Your task to perform on an android device: Do I have any events this weekend? Image 0: 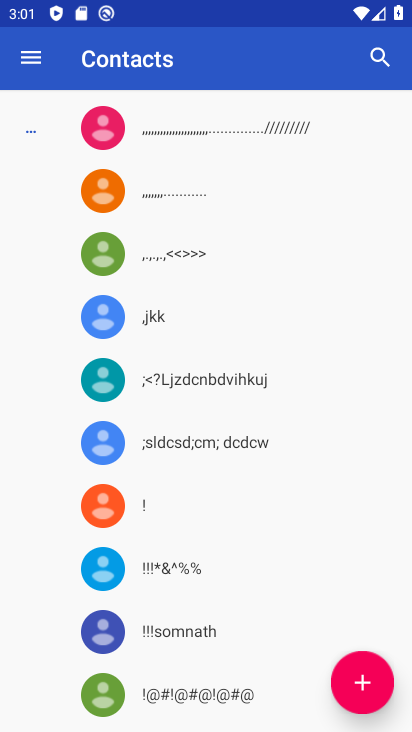
Step 0: press home button
Your task to perform on an android device: Do I have any events this weekend? Image 1: 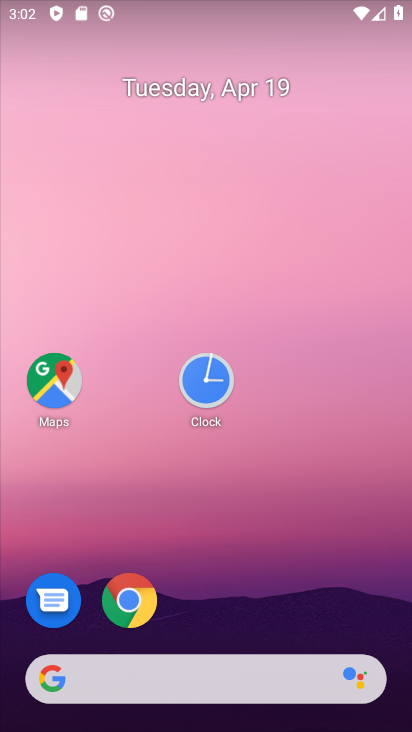
Step 1: drag from (223, 402) to (27, 142)
Your task to perform on an android device: Do I have any events this weekend? Image 2: 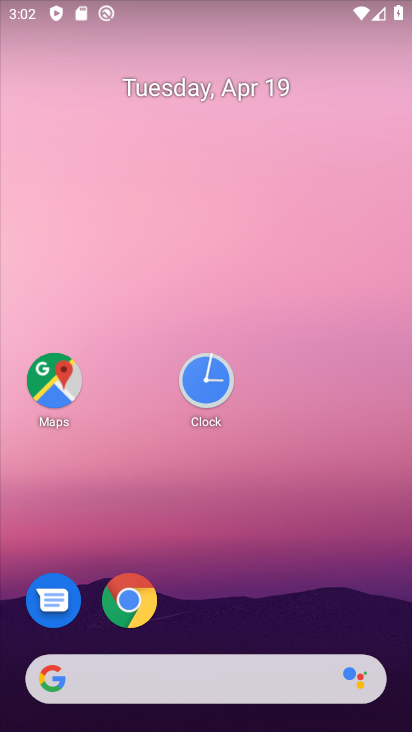
Step 2: drag from (153, 205) to (50, 160)
Your task to perform on an android device: Do I have any events this weekend? Image 3: 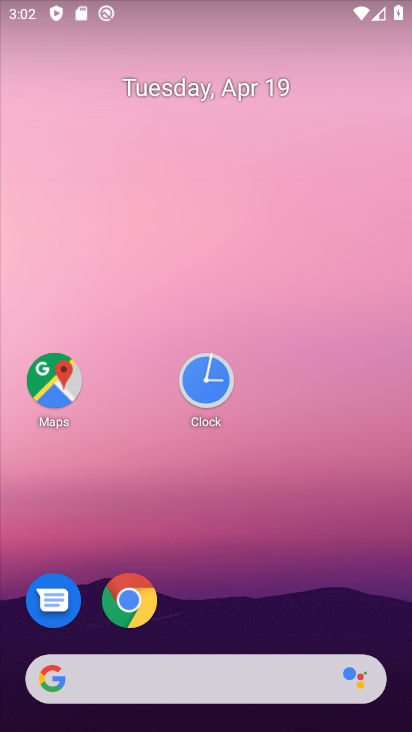
Step 3: click (50, 158)
Your task to perform on an android device: Do I have any events this weekend? Image 4: 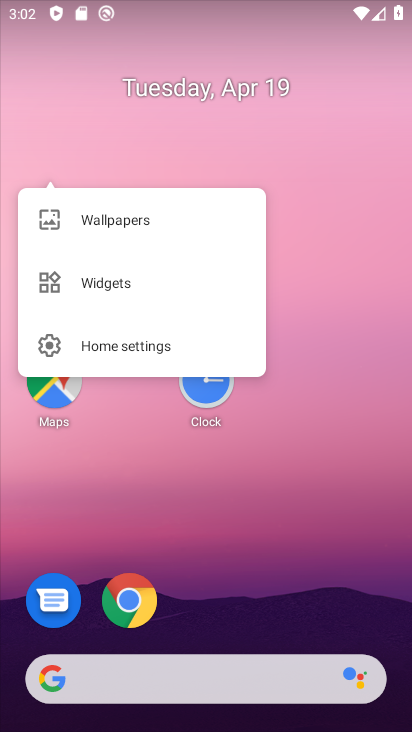
Step 4: click (168, 347)
Your task to perform on an android device: Do I have any events this weekend? Image 5: 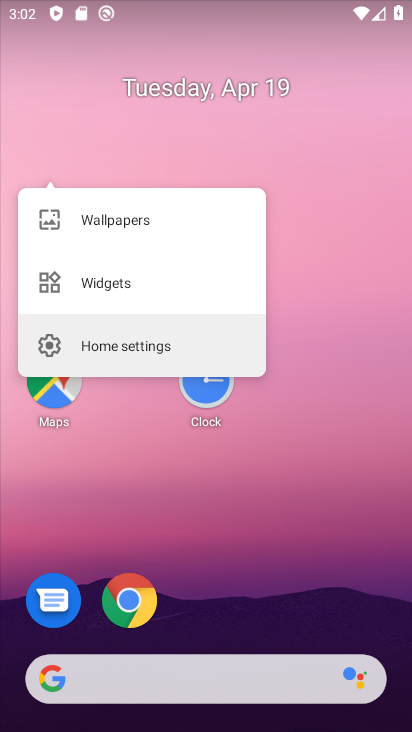
Step 5: click (168, 347)
Your task to perform on an android device: Do I have any events this weekend? Image 6: 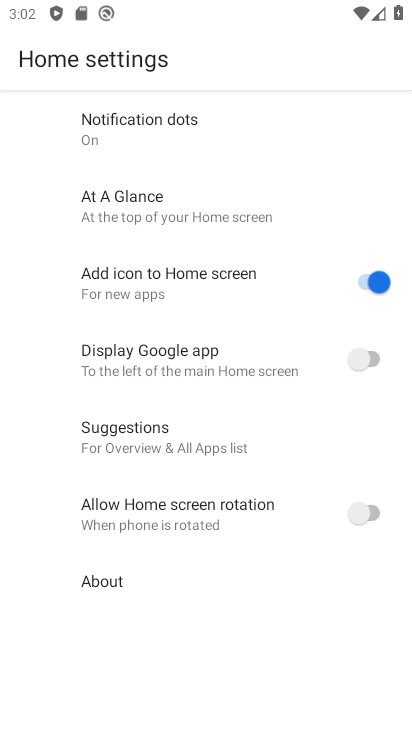
Step 6: press home button
Your task to perform on an android device: Do I have any events this weekend? Image 7: 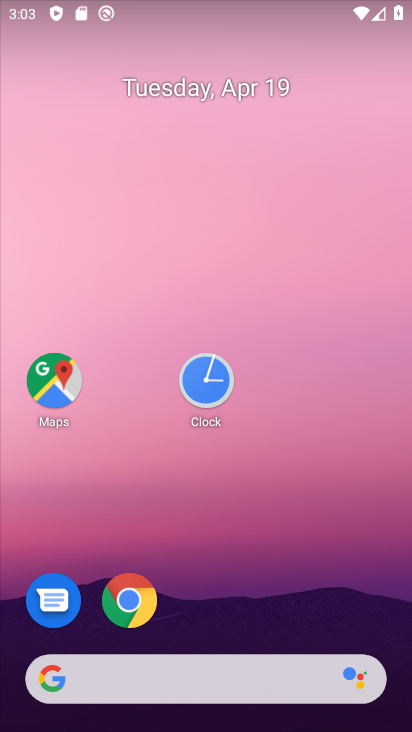
Step 7: drag from (232, 549) to (126, 278)
Your task to perform on an android device: Do I have any events this weekend? Image 8: 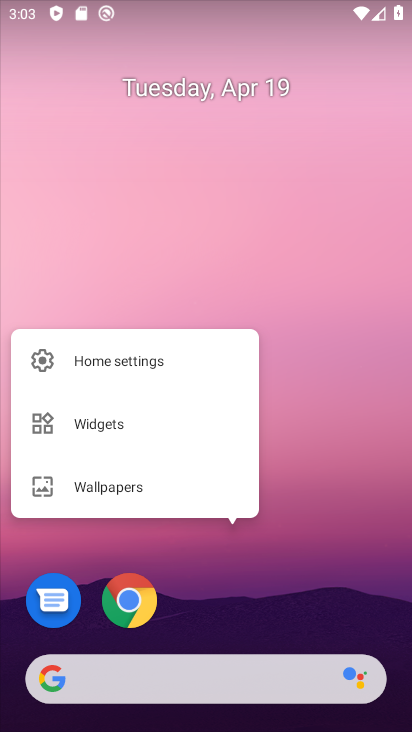
Step 8: drag from (294, 625) to (125, 242)
Your task to perform on an android device: Do I have any events this weekend? Image 9: 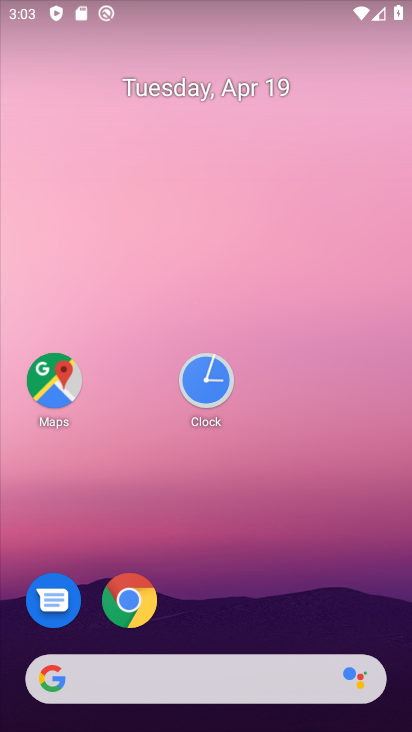
Step 9: drag from (177, 450) to (66, 248)
Your task to perform on an android device: Do I have any events this weekend? Image 10: 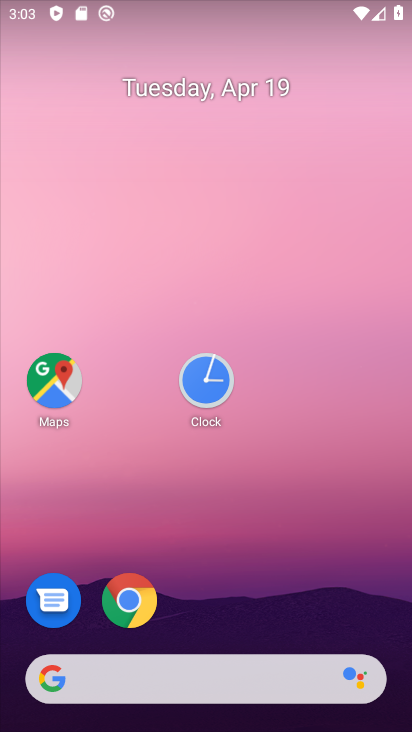
Step 10: drag from (63, 227) to (18, 139)
Your task to perform on an android device: Do I have any events this weekend? Image 11: 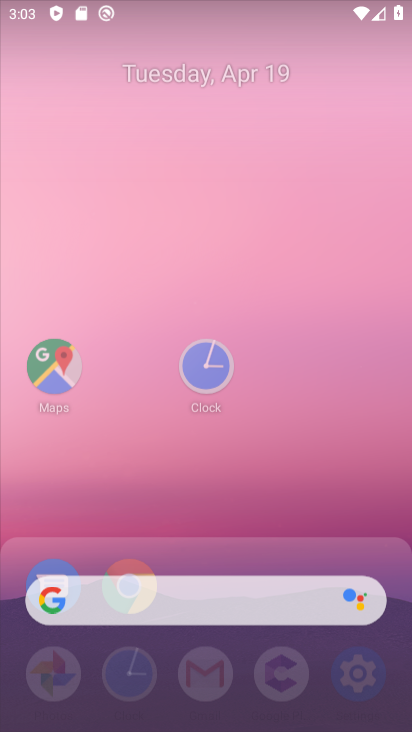
Step 11: drag from (224, 604) to (57, 257)
Your task to perform on an android device: Do I have any events this weekend? Image 12: 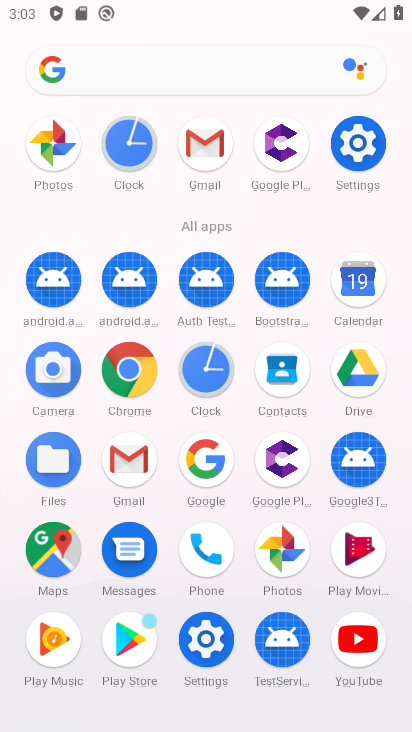
Step 12: drag from (214, 424) to (133, 258)
Your task to perform on an android device: Do I have any events this weekend? Image 13: 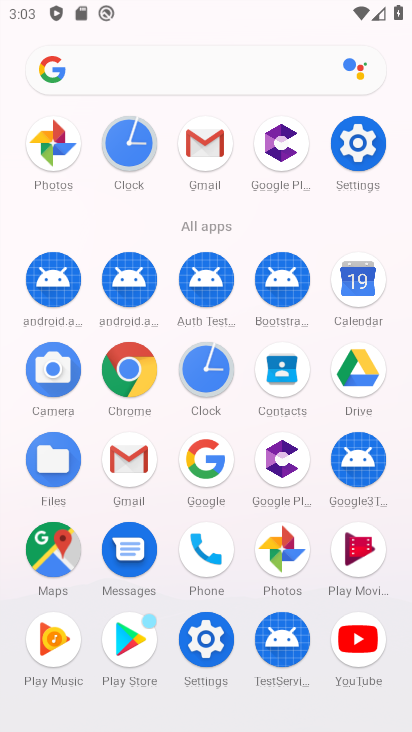
Step 13: click (347, 286)
Your task to perform on an android device: Do I have any events this weekend? Image 14: 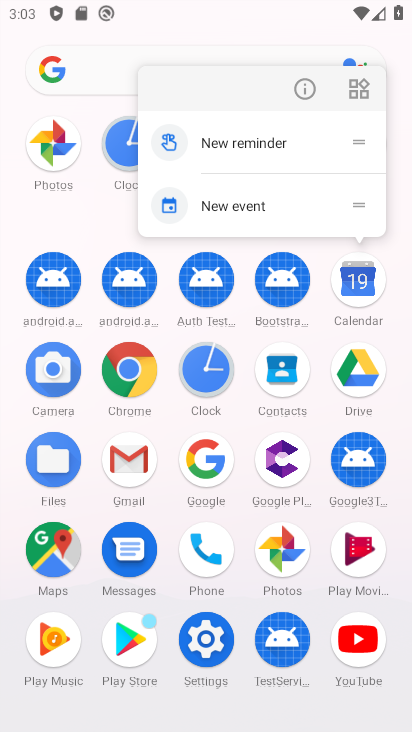
Step 14: click (350, 283)
Your task to perform on an android device: Do I have any events this weekend? Image 15: 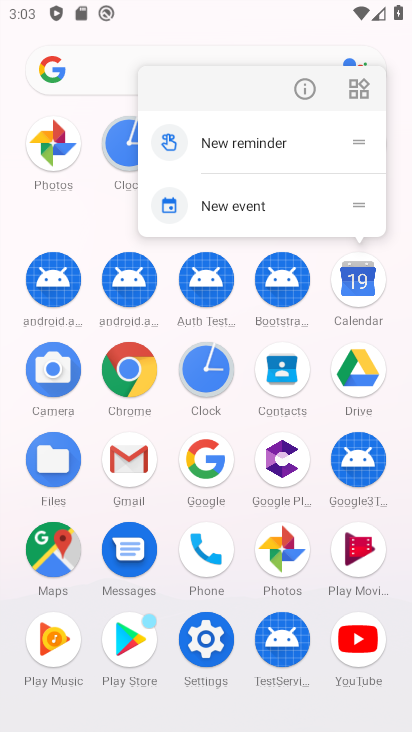
Step 15: click (350, 283)
Your task to perform on an android device: Do I have any events this weekend? Image 16: 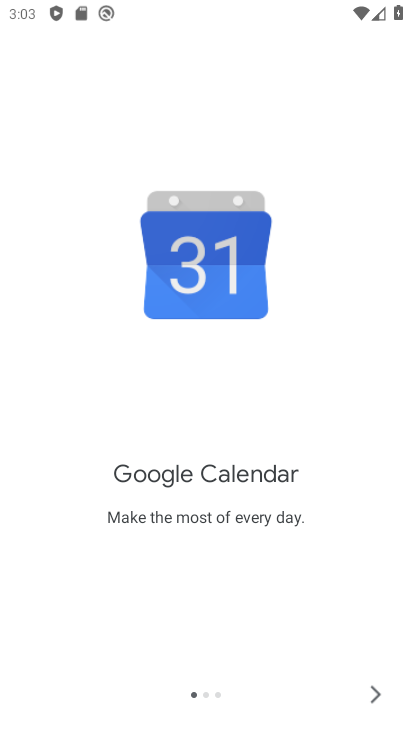
Step 16: click (384, 687)
Your task to perform on an android device: Do I have any events this weekend? Image 17: 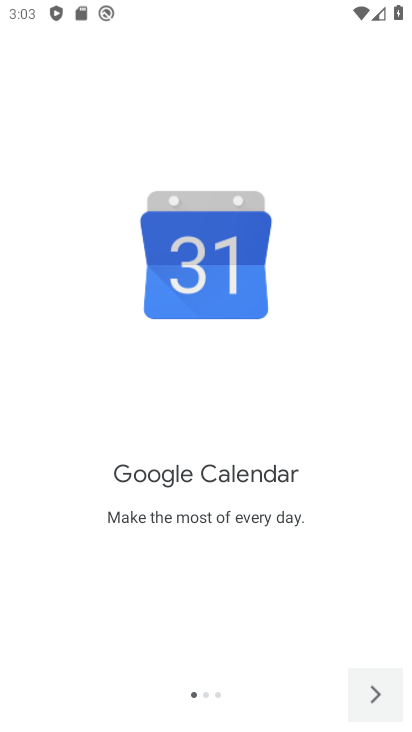
Step 17: click (374, 693)
Your task to perform on an android device: Do I have any events this weekend? Image 18: 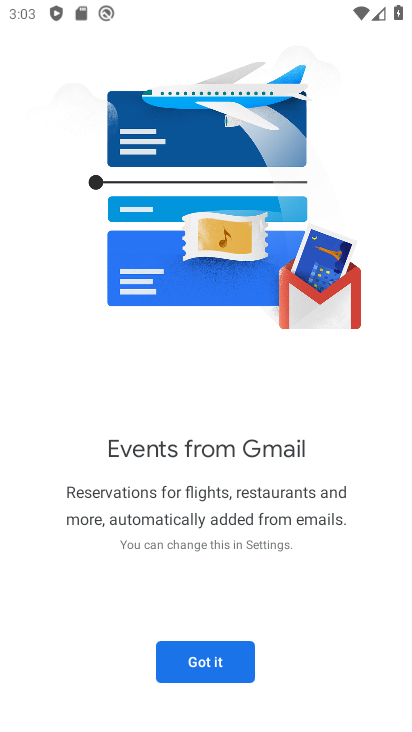
Step 18: click (200, 657)
Your task to perform on an android device: Do I have any events this weekend? Image 19: 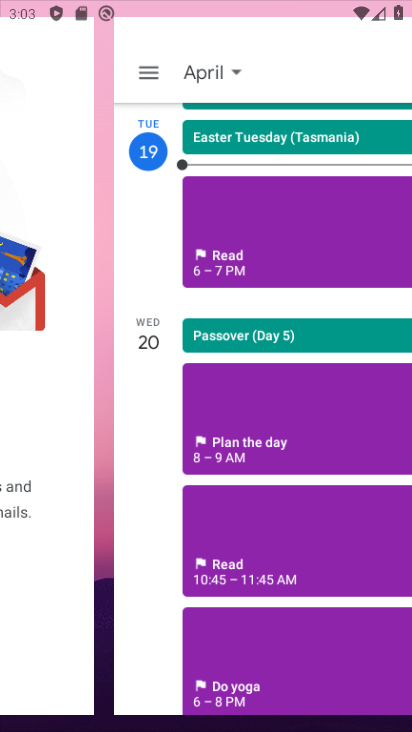
Step 19: click (210, 659)
Your task to perform on an android device: Do I have any events this weekend? Image 20: 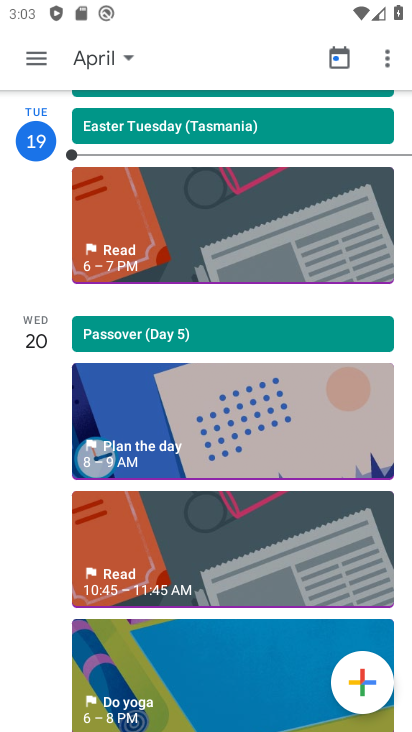
Step 20: task complete